Your task to perform on an android device: What's on my calendar today? Image 0: 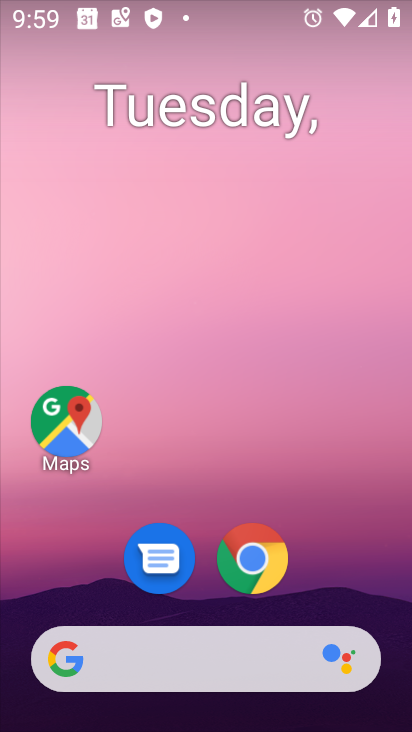
Step 0: drag from (272, 422) to (188, 172)
Your task to perform on an android device: What's on my calendar today? Image 1: 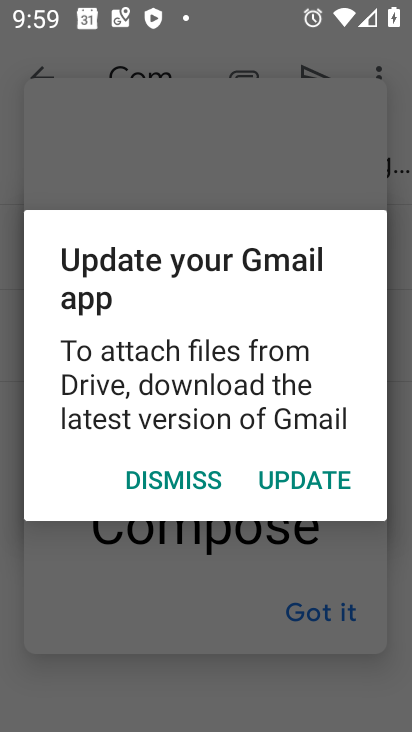
Step 1: click (179, 473)
Your task to perform on an android device: What's on my calendar today? Image 2: 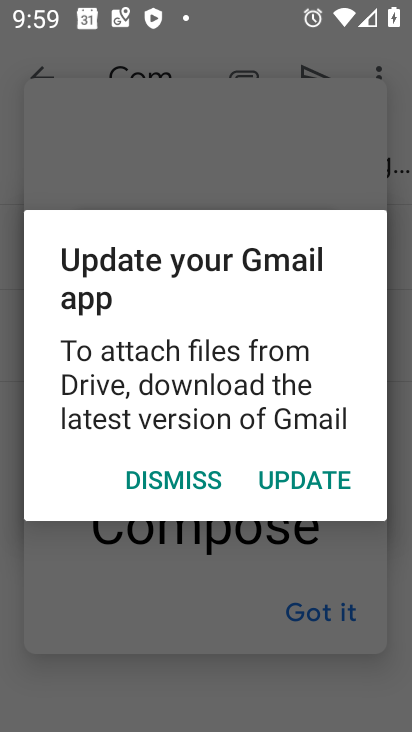
Step 2: click (180, 472)
Your task to perform on an android device: What's on my calendar today? Image 3: 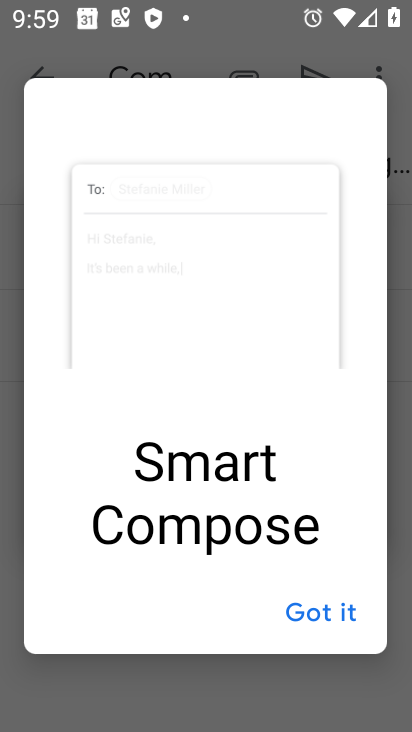
Step 3: click (180, 471)
Your task to perform on an android device: What's on my calendar today? Image 4: 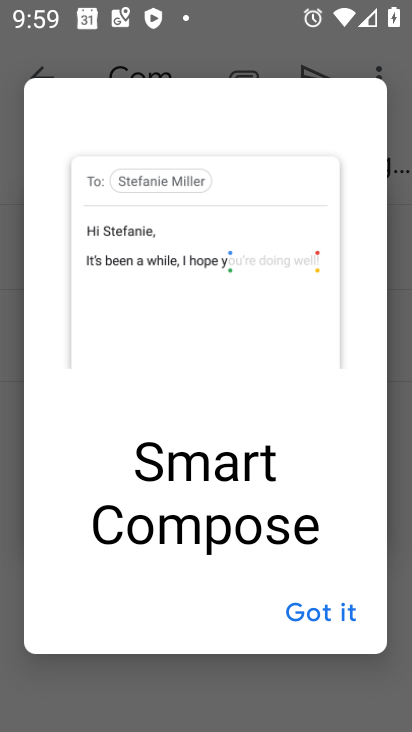
Step 4: click (321, 602)
Your task to perform on an android device: What's on my calendar today? Image 5: 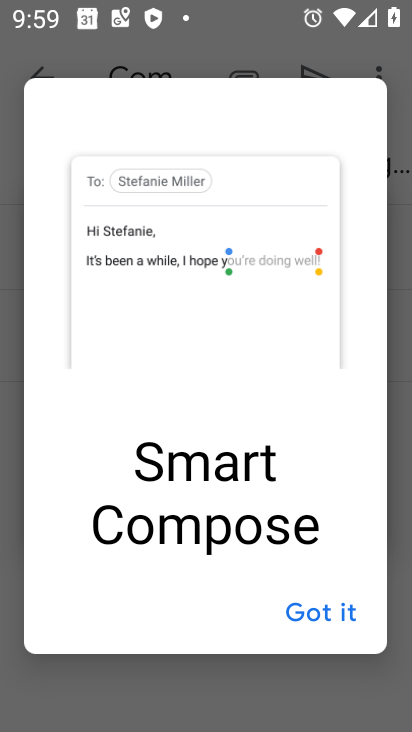
Step 5: click (321, 601)
Your task to perform on an android device: What's on my calendar today? Image 6: 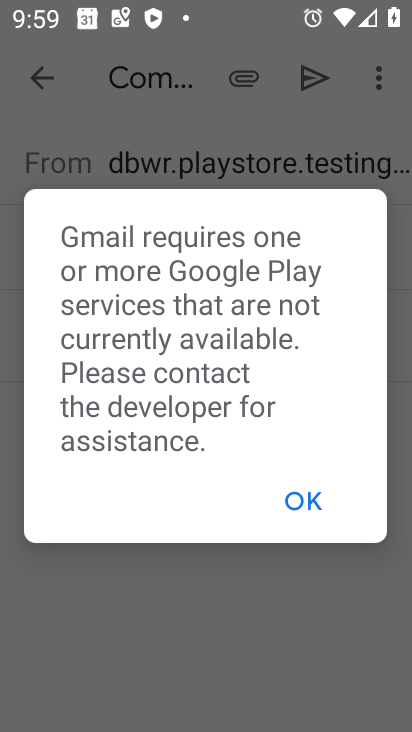
Step 6: click (309, 501)
Your task to perform on an android device: What's on my calendar today? Image 7: 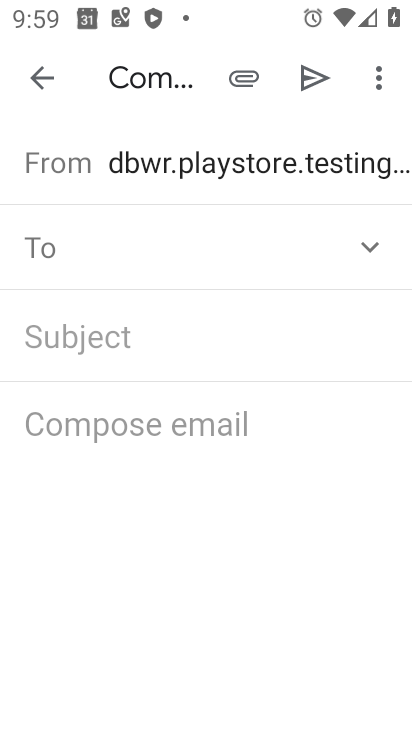
Step 7: press back button
Your task to perform on an android device: What's on my calendar today? Image 8: 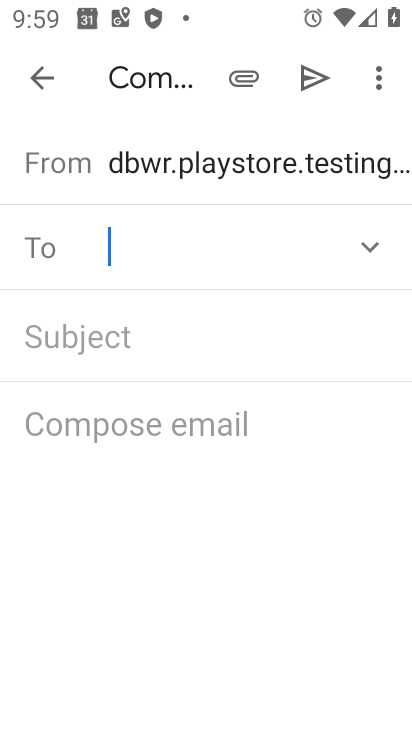
Step 8: press back button
Your task to perform on an android device: What's on my calendar today? Image 9: 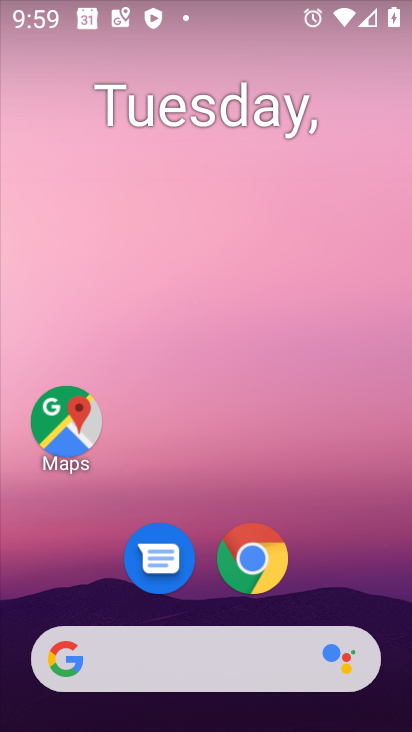
Step 9: drag from (396, 570) to (169, 80)
Your task to perform on an android device: What's on my calendar today? Image 10: 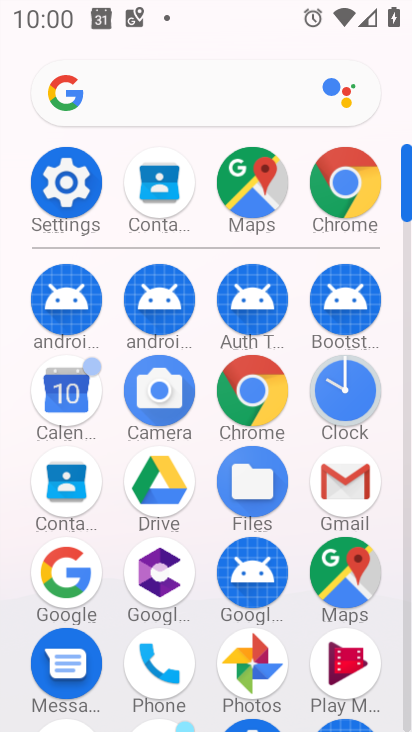
Step 10: click (66, 395)
Your task to perform on an android device: What's on my calendar today? Image 11: 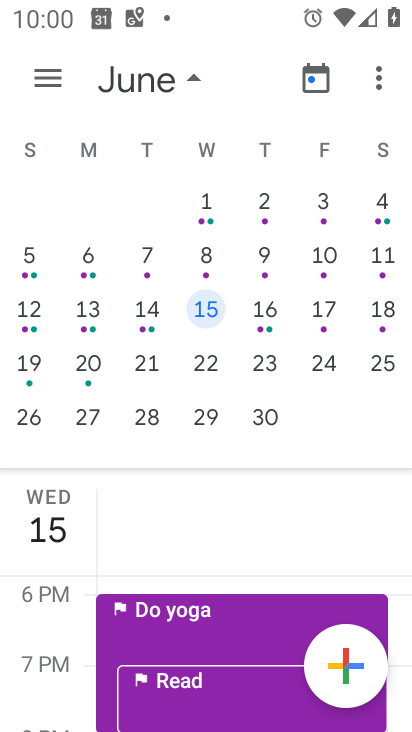
Step 11: task complete